Your task to perform on an android device: Open the phone app and click the voicemail tab. Image 0: 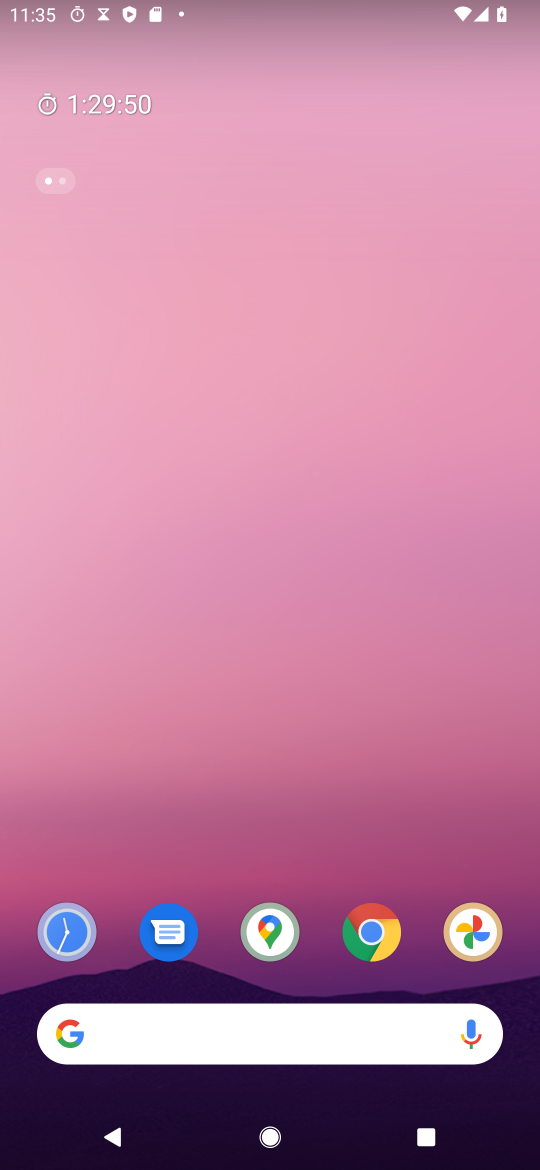
Step 0: drag from (427, 841) to (334, 54)
Your task to perform on an android device: Open the phone app and click the voicemail tab. Image 1: 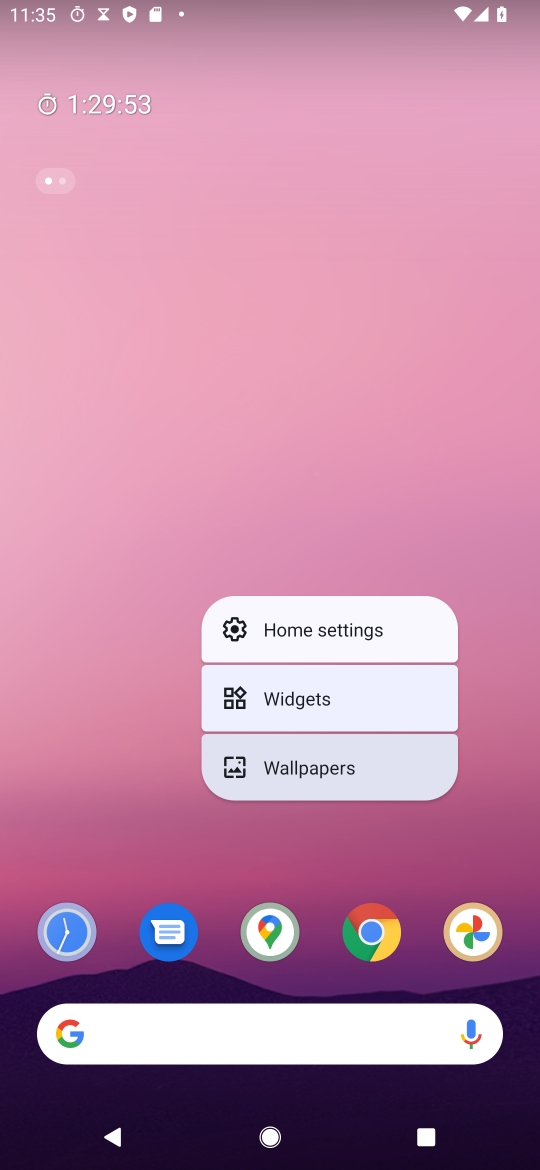
Step 1: drag from (520, 992) to (422, 210)
Your task to perform on an android device: Open the phone app and click the voicemail tab. Image 2: 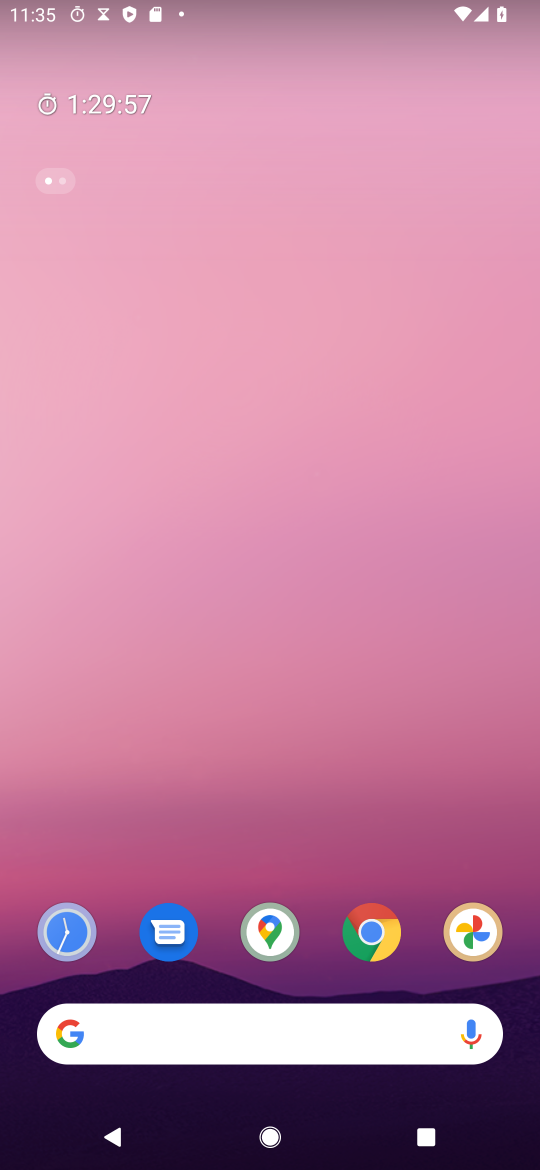
Step 2: drag from (328, 980) to (244, 44)
Your task to perform on an android device: Open the phone app and click the voicemail tab. Image 3: 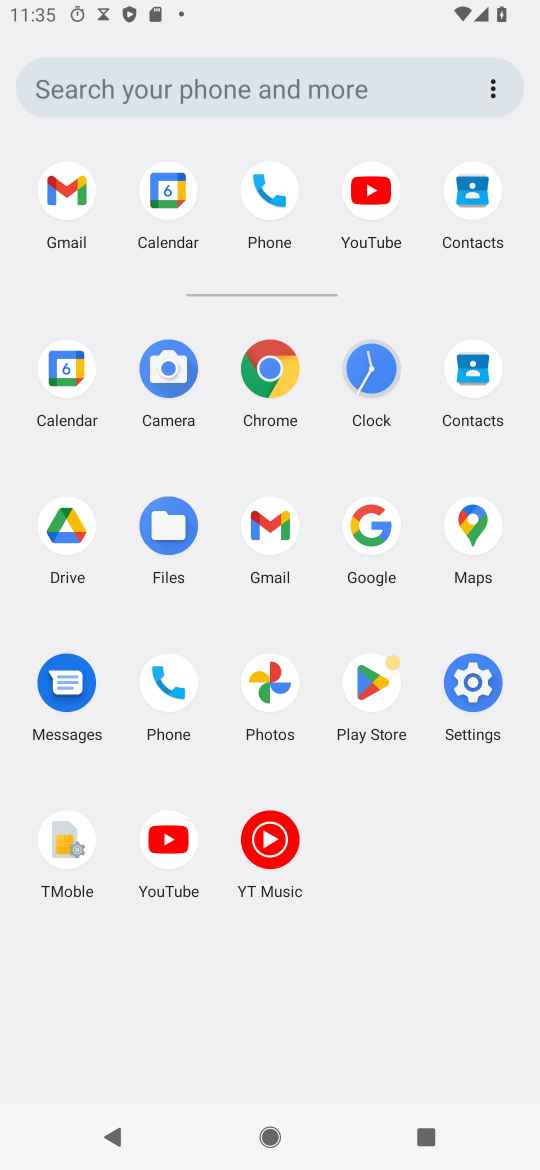
Step 3: click (268, 183)
Your task to perform on an android device: Open the phone app and click the voicemail tab. Image 4: 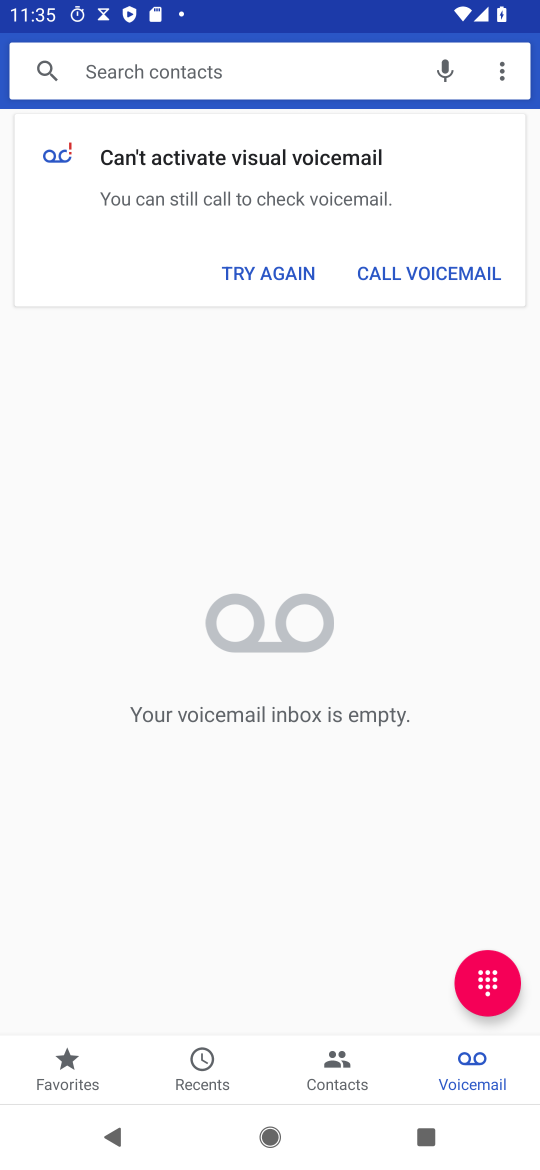
Step 4: task complete